Your task to perform on an android device: set the timer Image 0: 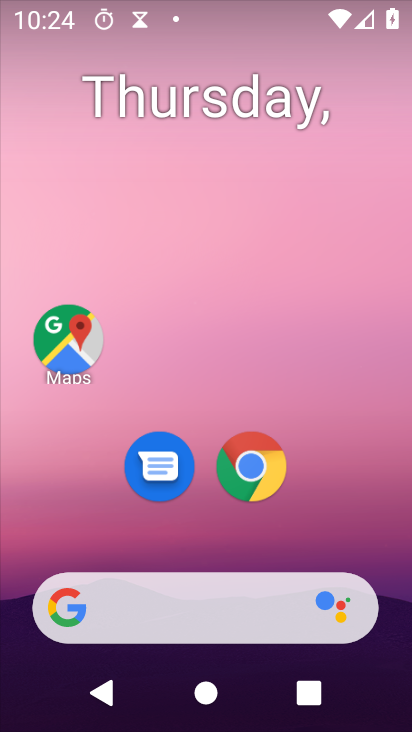
Step 0: drag from (190, 607) to (288, 139)
Your task to perform on an android device: set the timer Image 1: 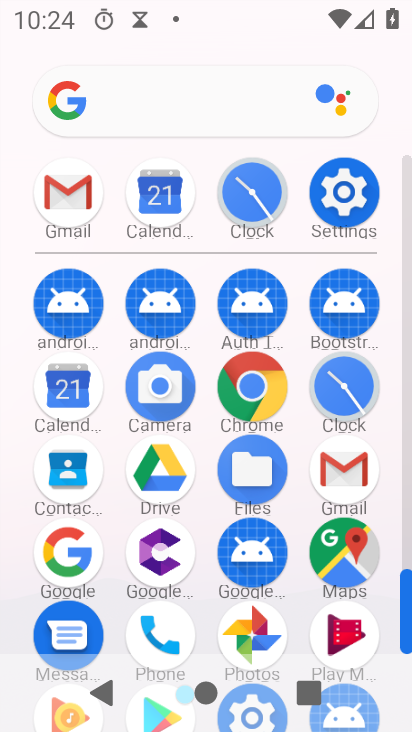
Step 1: click (338, 398)
Your task to perform on an android device: set the timer Image 2: 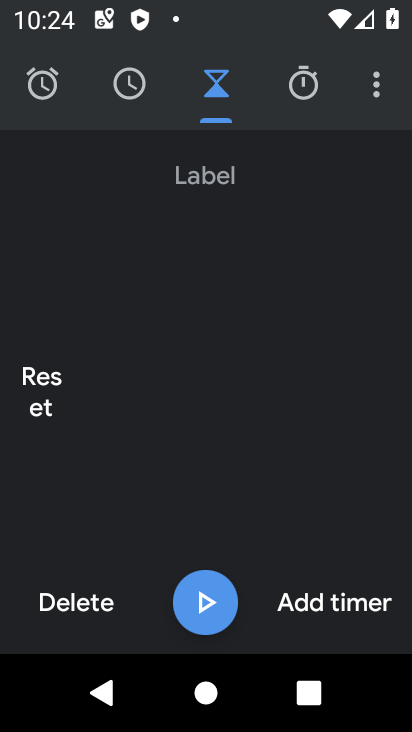
Step 2: click (70, 608)
Your task to perform on an android device: set the timer Image 3: 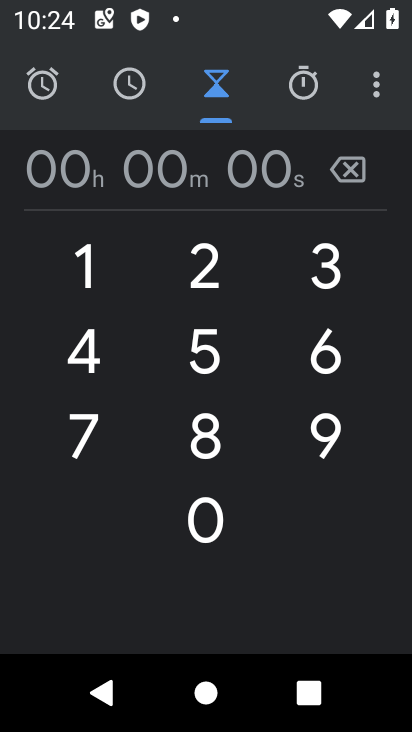
Step 3: click (89, 357)
Your task to perform on an android device: set the timer Image 4: 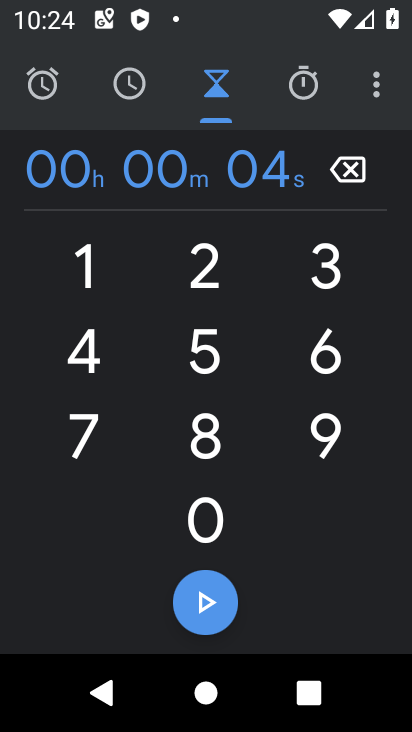
Step 4: click (213, 355)
Your task to perform on an android device: set the timer Image 5: 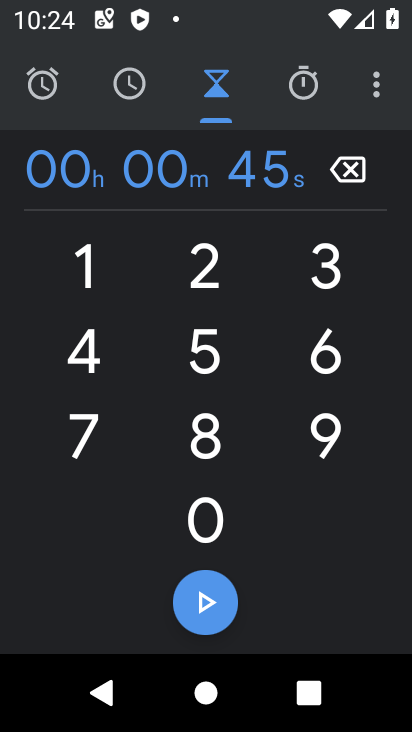
Step 5: click (199, 604)
Your task to perform on an android device: set the timer Image 6: 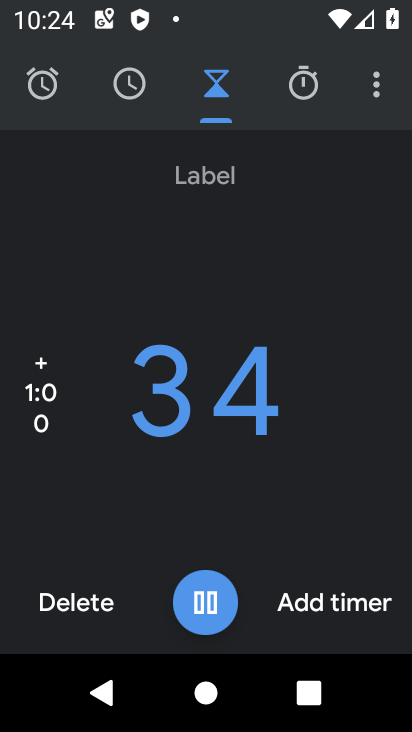
Step 6: click (210, 606)
Your task to perform on an android device: set the timer Image 7: 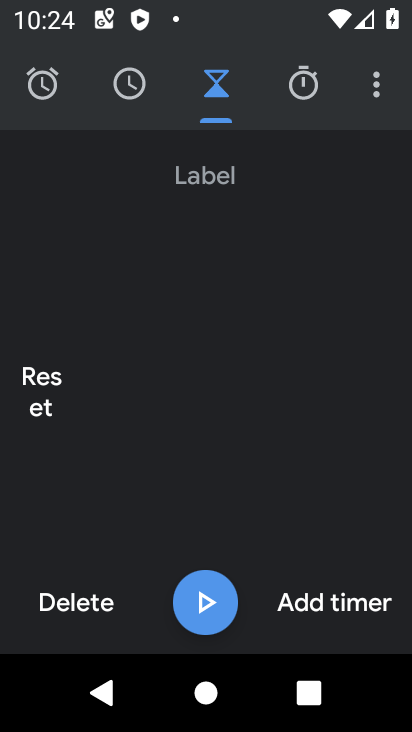
Step 7: task complete